Your task to perform on an android device: turn on airplane mode Image 0: 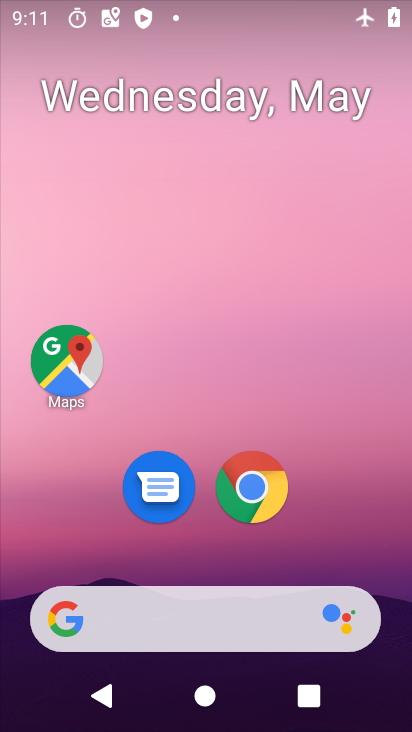
Step 0: drag from (207, 555) to (215, 256)
Your task to perform on an android device: turn on airplane mode Image 1: 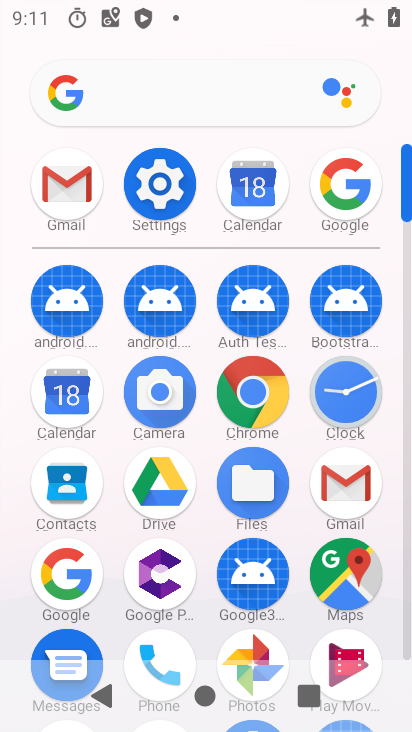
Step 1: click (169, 204)
Your task to perform on an android device: turn on airplane mode Image 2: 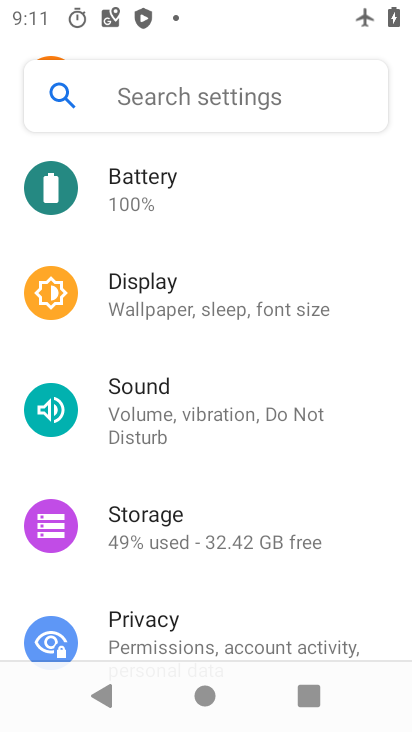
Step 2: drag from (191, 198) to (202, 501)
Your task to perform on an android device: turn on airplane mode Image 3: 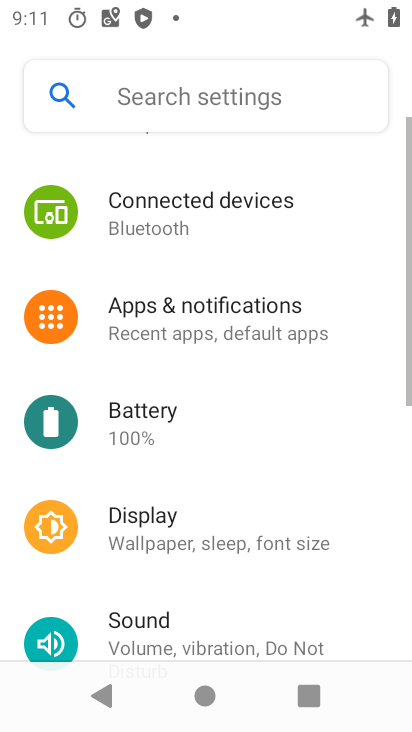
Step 3: drag from (260, 301) to (277, 571)
Your task to perform on an android device: turn on airplane mode Image 4: 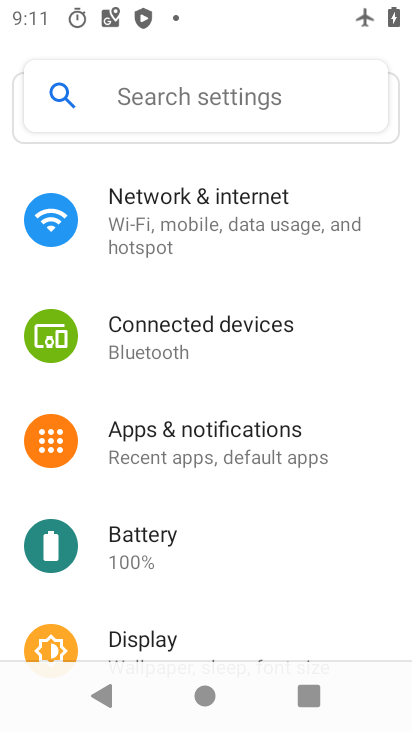
Step 4: click (244, 253)
Your task to perform on an android device: turn on airplane mode Image 5: 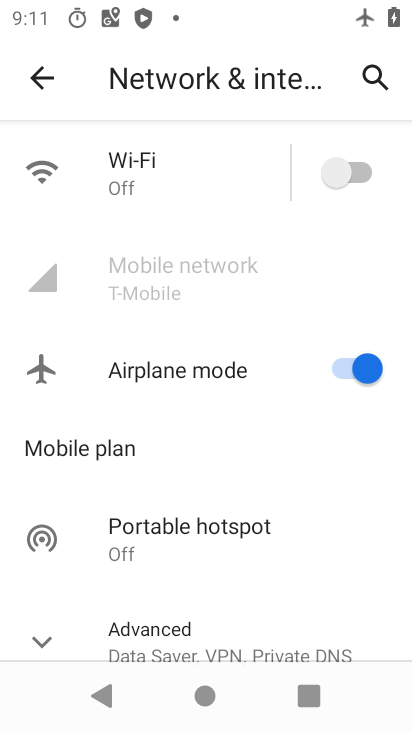
Step 5: task complete